Your task to perform on an android device: uninstall "Facebook" Image 0: 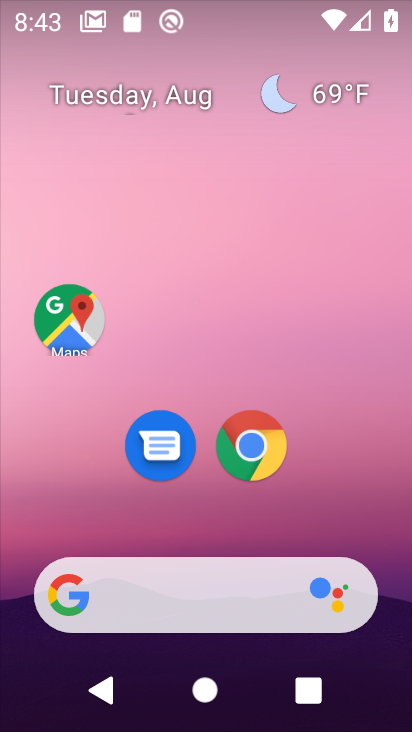
Step 0: drag from (225, 557) to (344, 29)
Your task to perform on an android device: uninstall "Facebook" Image 1: 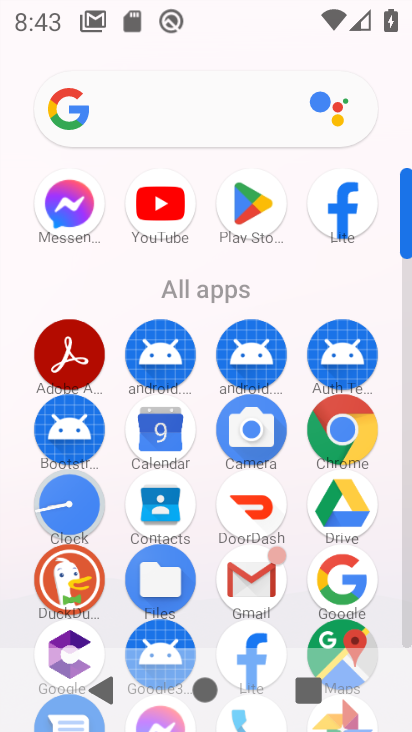
Step 1: drag from (210, 618) to (189, 158)
Your task to perform on an android device: uninstall "Facebook" Image 2: 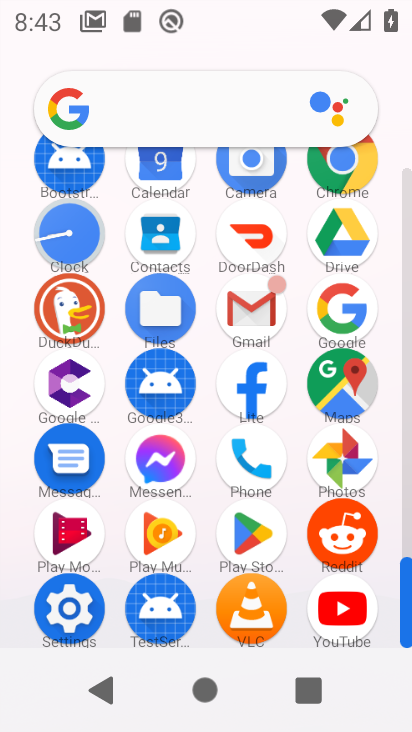
Step 2: click (256, 405)
Your task to perform on an android device: uninstall "Facebook" Image 3: 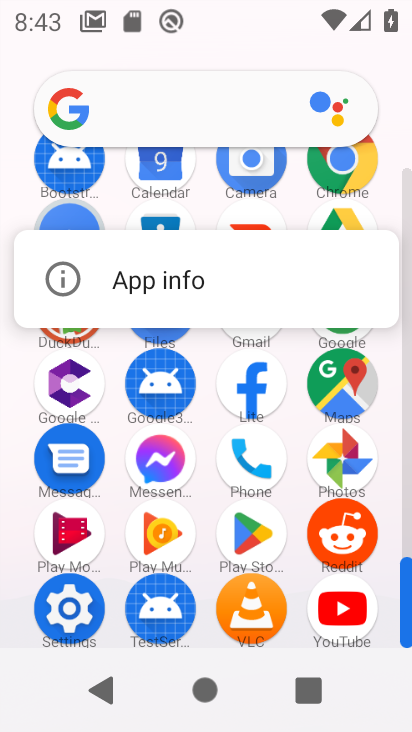
Step 3: click (53, 280)
Your task to perform on an android device: uninstall "Facebook" Image 4: 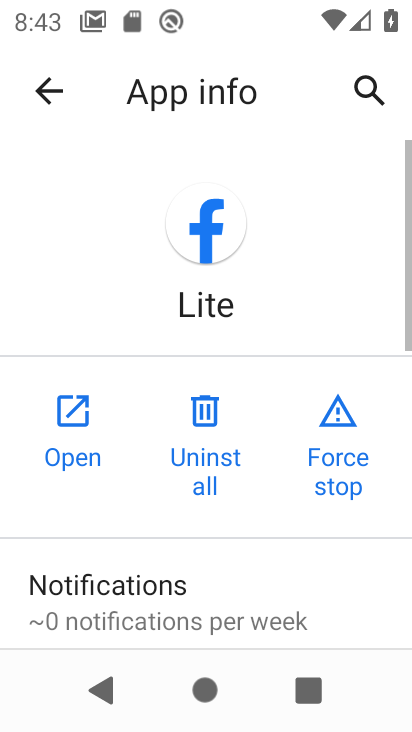
Step 4: click (215, 426)
Your task to perform on an android device: uninstall "Facebook" Image 5: 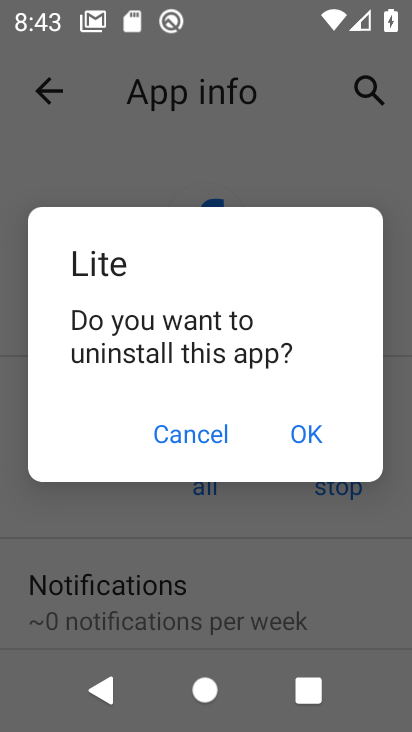
Step 5: click (312, 431)
Your task to perform on an android device: uninstall "Facebook" Image 6: 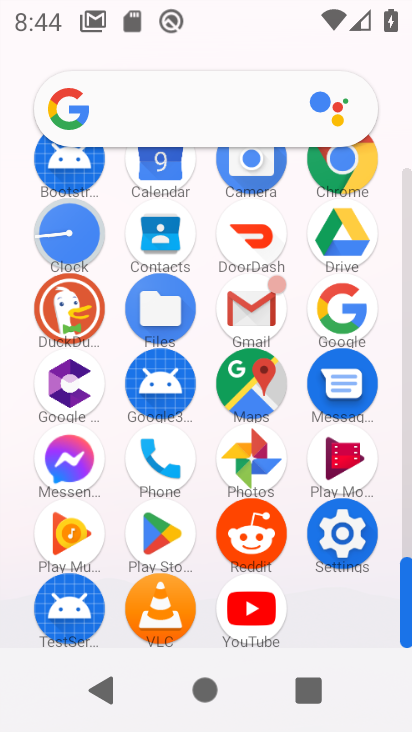
Step 6: task complete